Your task to perform on an android device: Is it going to rain today? Image 0: 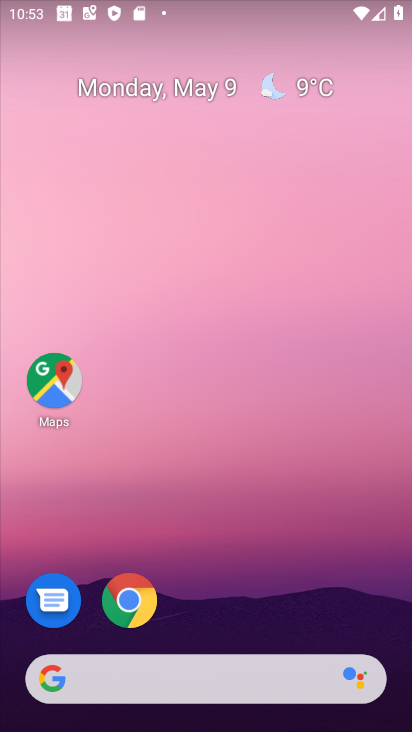
Step 0: drag from (333, 587) to (345, 147)
Your task to perform on an android device: Is it going to rain today? Image 1: 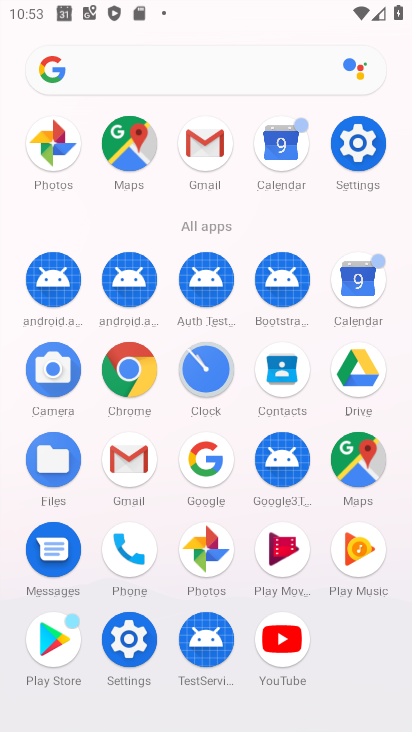
Step 1: click (128, 369)
Your task to perform on an android device: Is it going to rain today? Image 2: 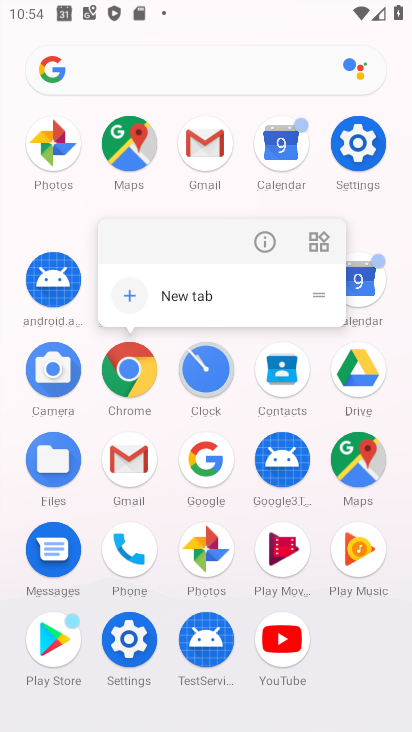
Step 2: click (136, 384)
Your task to perform on an android device: Is it going to rain today? Image 3: 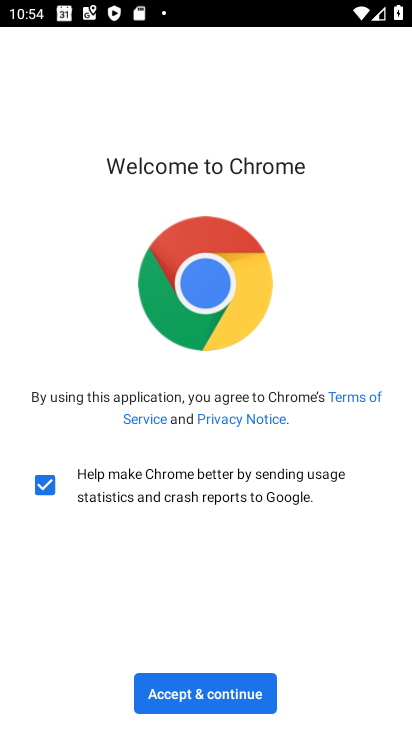
Step 3: click (227, 703)
Your task to perform on an android device: Is it going to rain today? Image 4: 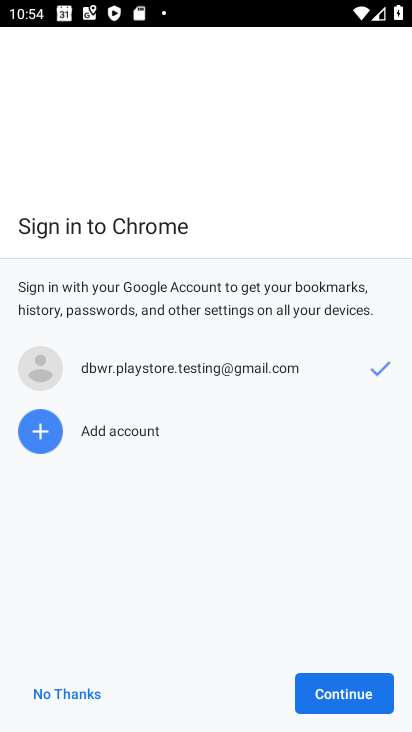
Step 4: click (332, 706)
Your task to perform on an android device: Is it going to rain today? Image 5: 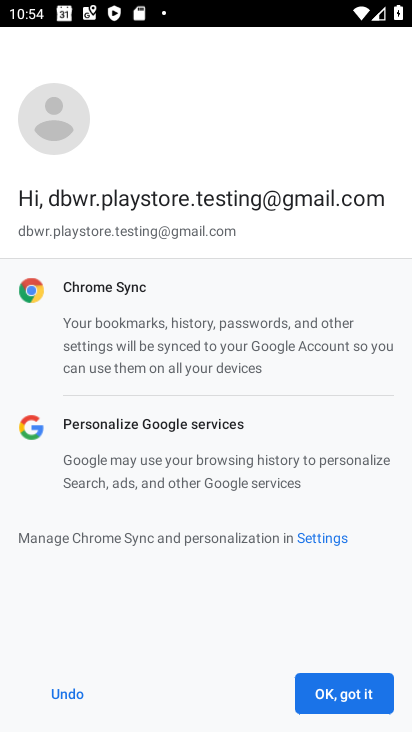
Step 5: click (334, 701)
Your task to perform on an android device: Is it going to rain today? Image 6: 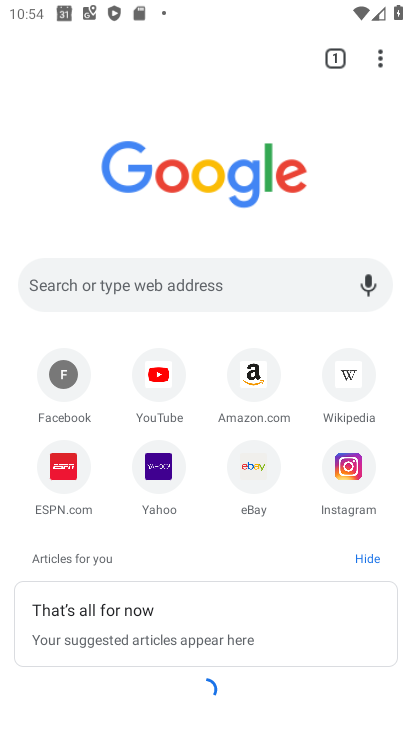
Step 6: click (190, 274)
Your task to perform on an android device: Is it going to rain today? Image 7: 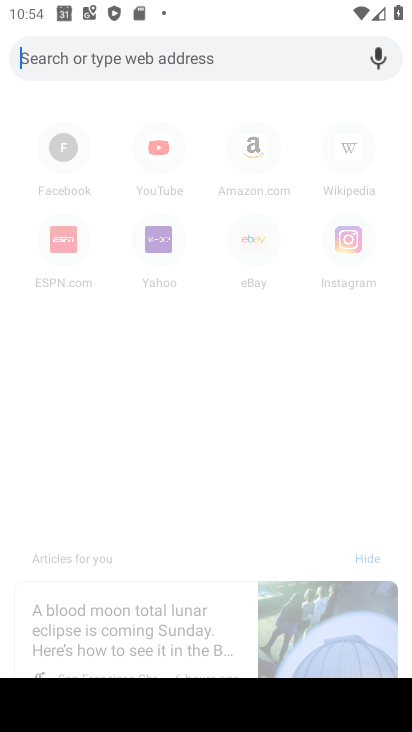
Step 7: type "is it going to rain today"
Your task to perform on an android device: Is it going to rain today? Image 8: 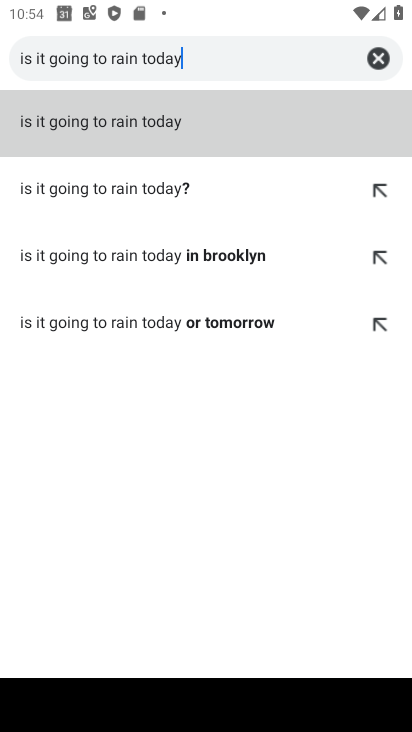
Step 8: click (188, 118)
Your task to perform on an android device: Is it going to rain today? Image 9: 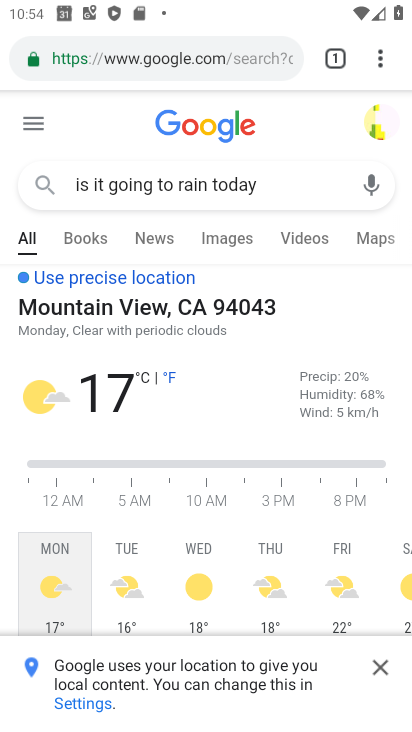
Step 9: task complete